Your task to perform on an android device: delete browsing data in the chrome app Image 0: 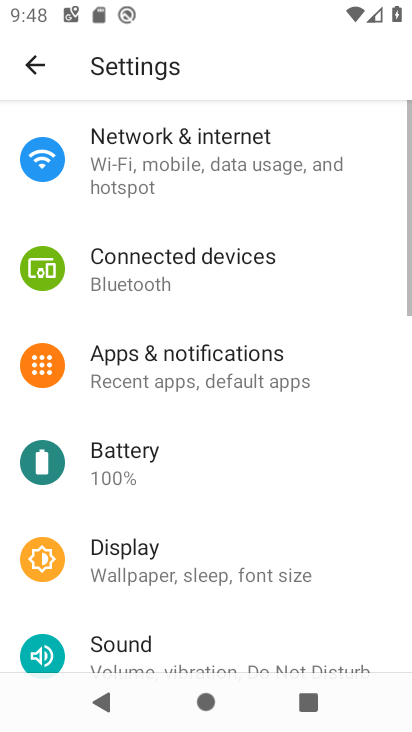
Step 0: press home button
Your task to perform on an android device: delete browsing data in the chrome app Image 1: 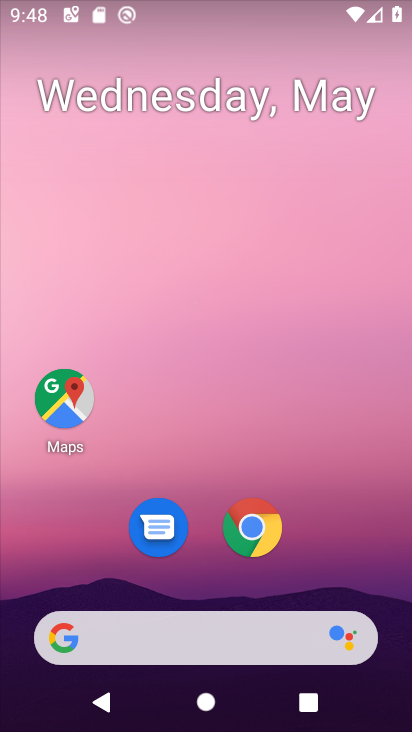
Step 1: click (266, 527)
Your task to perform on an android device: delete browsing data in the chrome app Image 2: 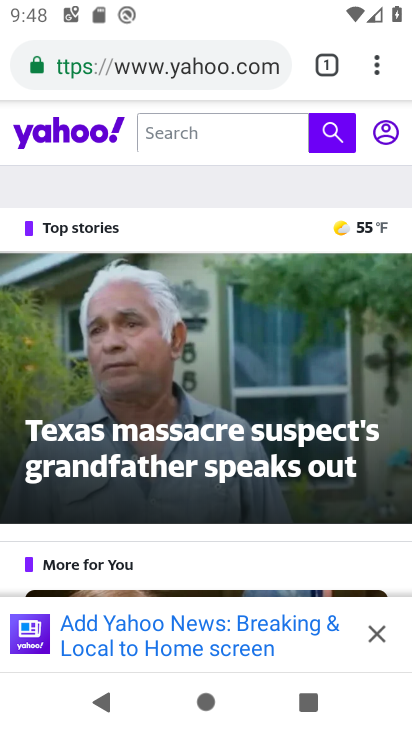
Step 2: click (374, 59)
Your task to perform on an android device: delete browsing data in the chrome app Image 3: 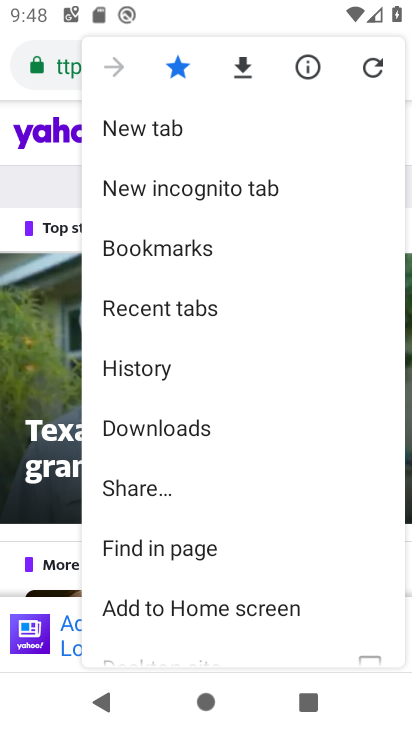
Step 3: drag from (305, 514) to (260, 232)
Your task to perform on an android device: delete browsing data in the chrome app Image 4: 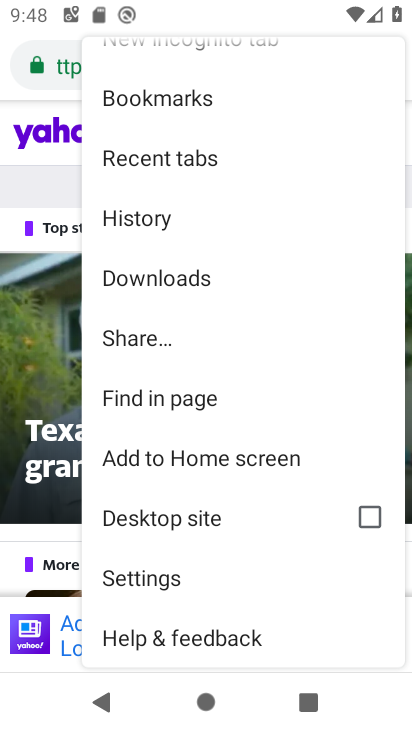
Step 4: click (131, 584)
Your task to perform on an android device: delete browsing data in the chrome app Image 5: 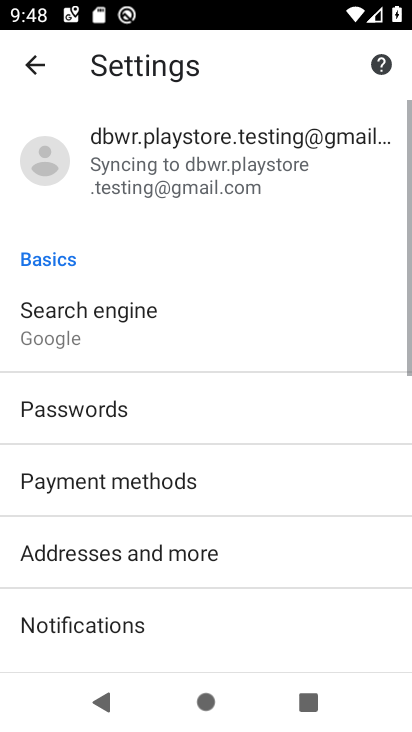
Step 5: drag from (237, 565) to (254, 130)
Your task to perform on an android device: delete browsing data in the chrome app Image 6: 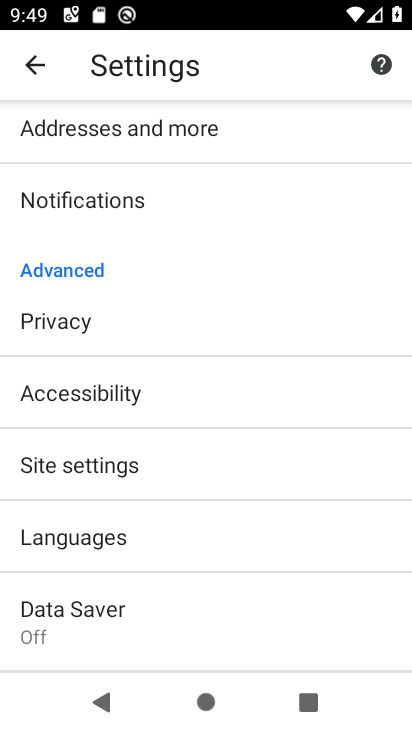
Step 6: click (89, 328)
Your task to perform on an android device: delete browsing data in the chrome app Image 7: 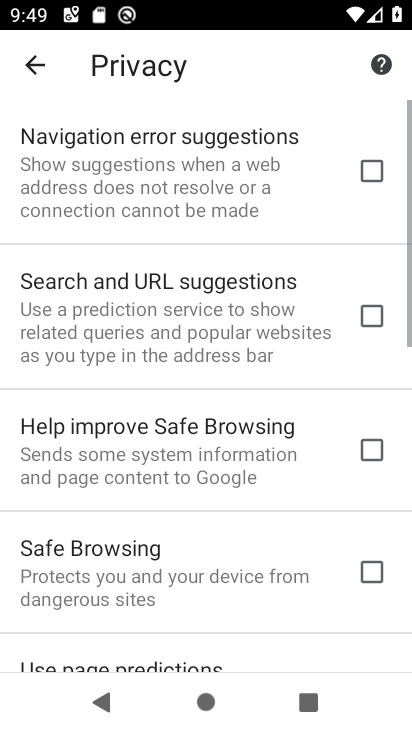
Step 7: drag from (262, 593) to (283, 130)
Your task to perform on an android device: delete browsing data in the chrome app Image 8: 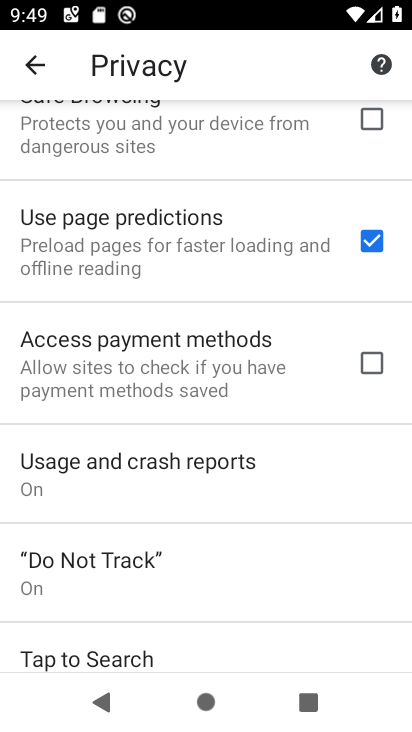
Step 8: drag from (229, 575) to (287, 123)
Your task to perform on an android device: delete browsing data in the chrome app Image 9: 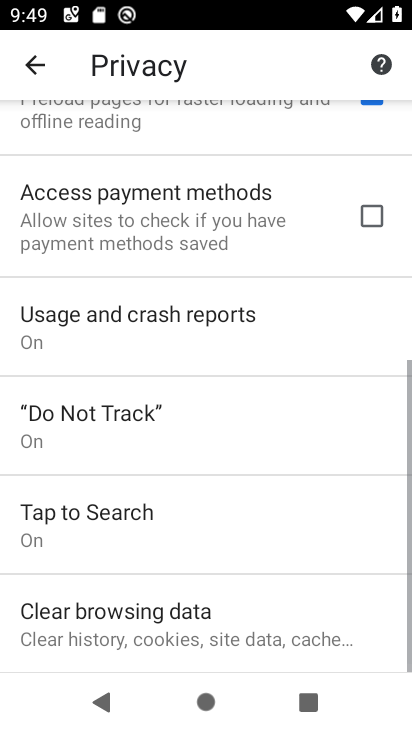
Step 9: click (129, 626)
Your task to perform on an android device: delete browsing data in the chrome app Image 10: 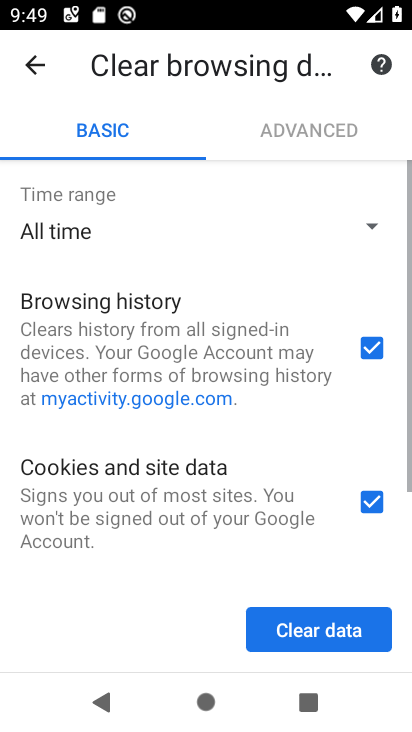
Step 10: click (368, 515)
Your task to perform on an android device: delete browsing data in the chrome app Image 11: 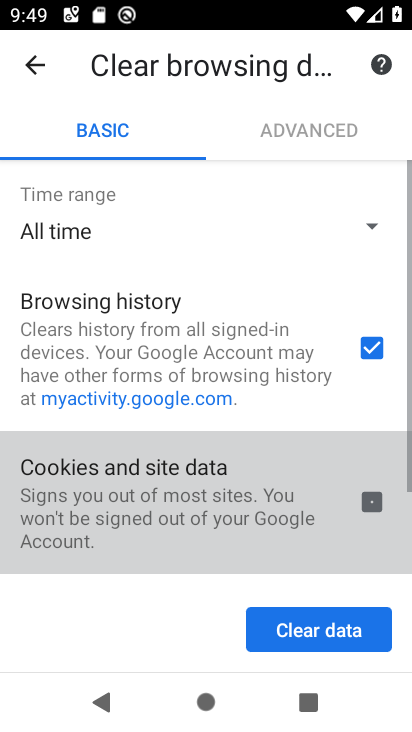
Step 11: drag from (282, 503) to (270, 263)
Your task to perform on an android device: delete browsing data in the chrome app Image 12: 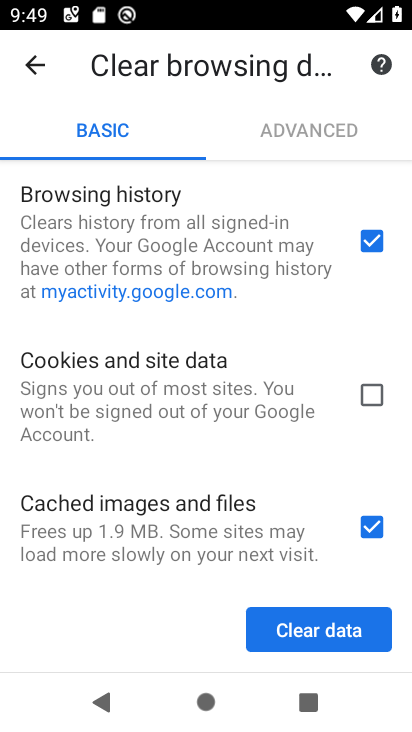
Step 12: click (370, 517)
Your task to perform on an android device: delete browsing data in the chrome app Image 13: 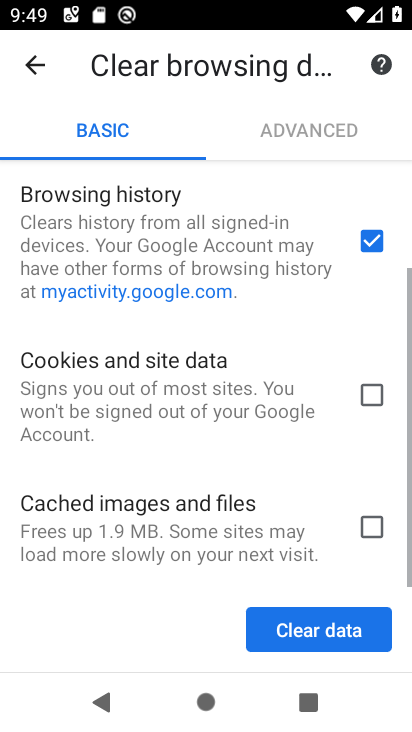
Step 13: click (297, 642)
Your task to perform on an android device: delete browsing data in the chrome app Image 14: 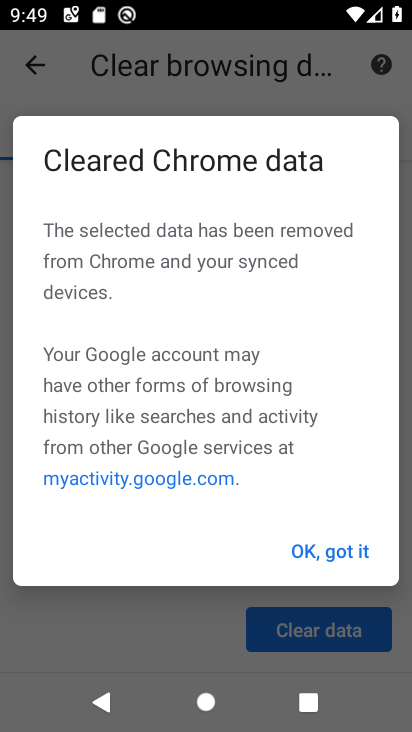
Step 14: click (316, 539)
Your task to perform on an android device: delete browsing data in the chrome app Image 15: 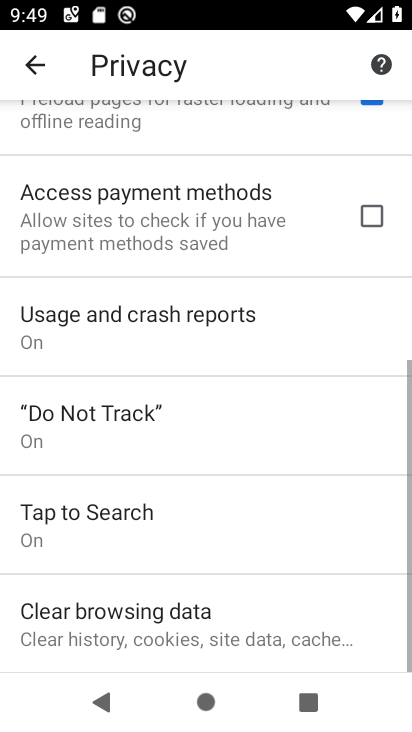
Step 15: task complete